Your task to perform on an android device: set the stopwatch Image 0: 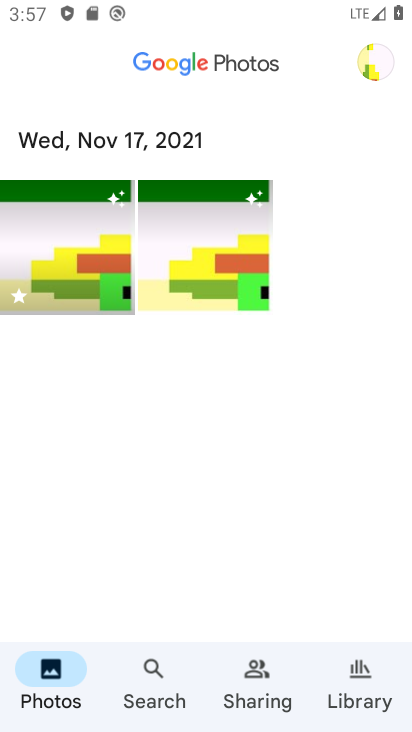
Step 0: press home button
Your task to perform on an android device: set the stopwatch Image 1: 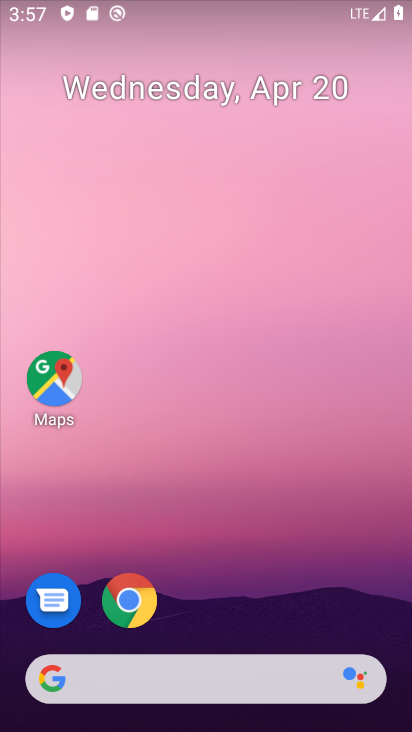
Step 1: drag from (245, 462) to (250, 67)
Your task to perform on an android device: set the stopwatch Image 2: 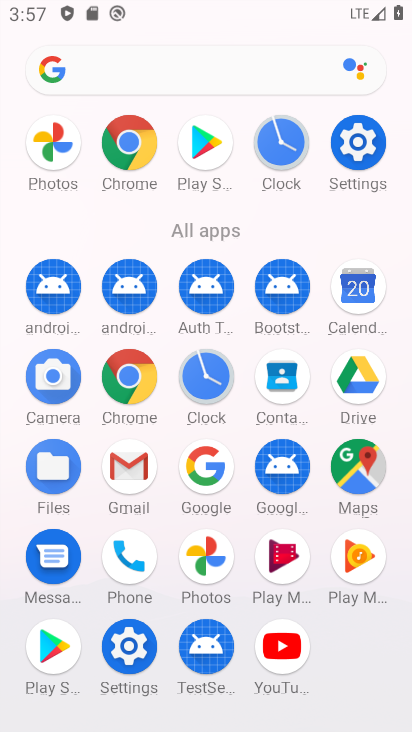
Step 2: click (197, 402)
Your task to perform on an android device: set the stopwatch Image 3: 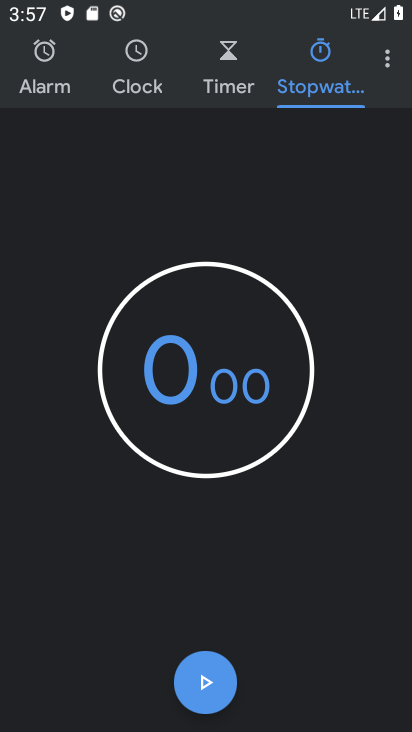
Step 3: click (196, 677)
Your task to perform on an android device: set the stopwatch Image 4: 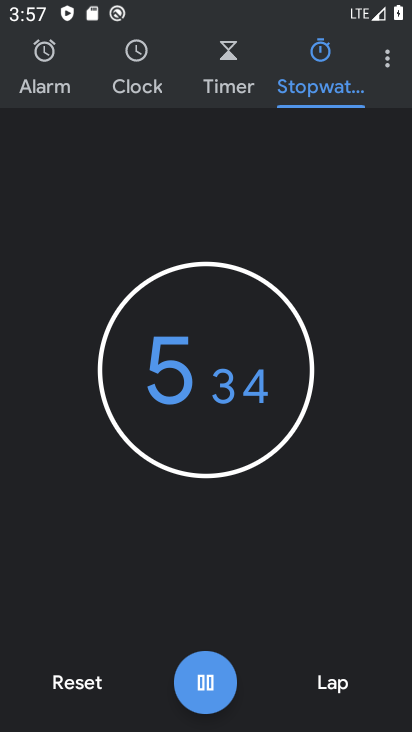
Step 4: click (209, 693)
Your task to perform on an android device: set the stopwatch Image 5: 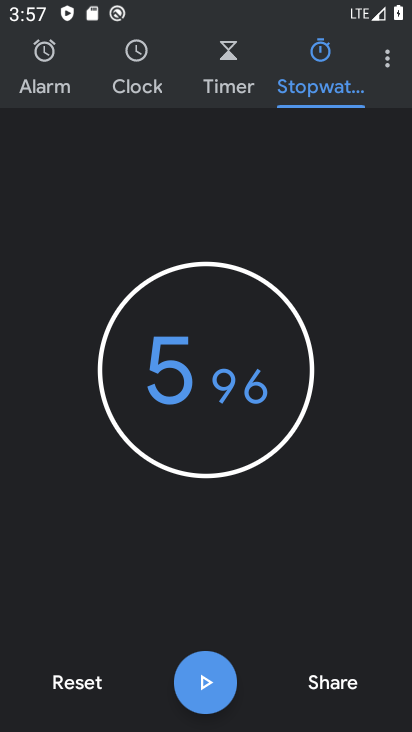
Step 5: task complete